Your task to perform on an android device: toggle priority inbox in the gmail app Image 0: 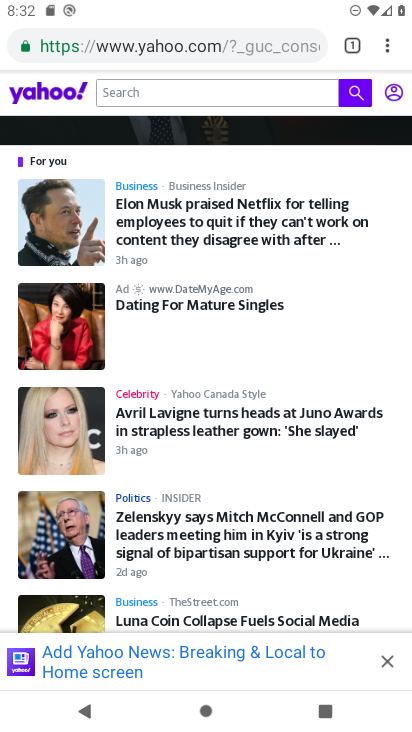
Step 0: press home button
Your task to perform on an android device: toggle priority inbox in the gmail app Image 1: 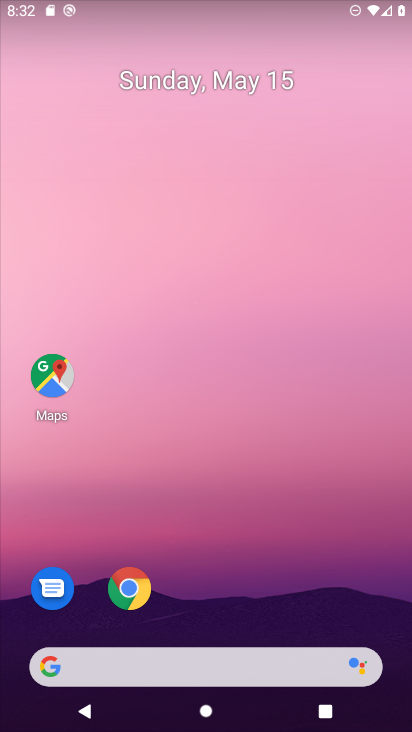
Step 1: drag from (223, 617) to (245, 128)
Your task to perform on an android device: toggle priority inbox in the gmail app Image 2: 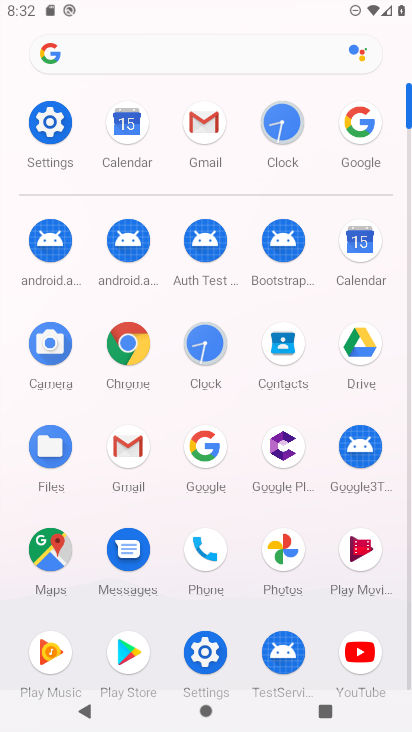
Step 2: click (121, 442)
Your task to perform on an android device: toggle priority inbox in the gmail app Image 3: 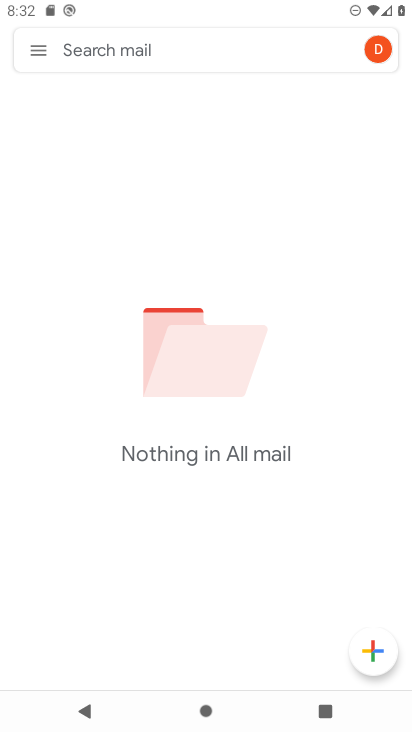
Step 3: click (38, 48)
Your task to perform on an android device: toggle priority inbox in the gmail app Image 4: 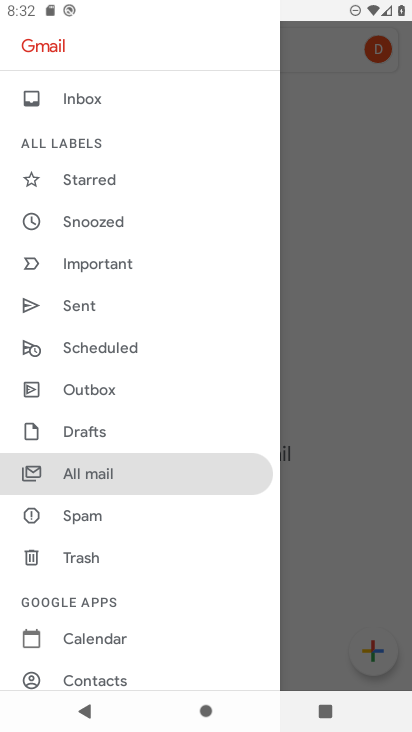
Step 4: drag from (148, 655) to (162, 100)
Your task to perform on an android device: toggle priority inbox in the gmail app Image 5: 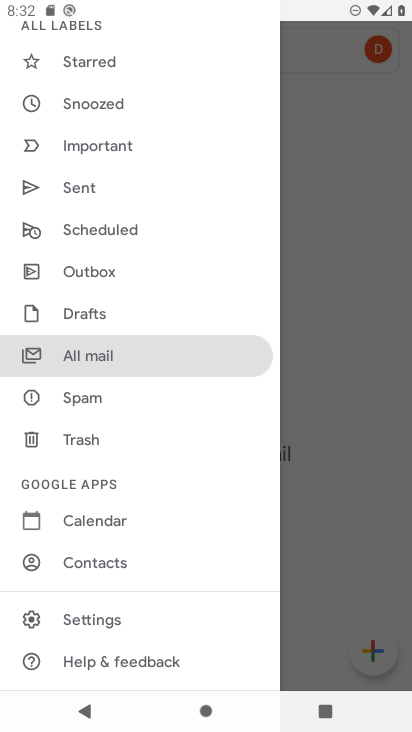
Step 5: click (126, 613)
Your task to perform on an android device: toggle priority inbox in the gmail app Image 6: 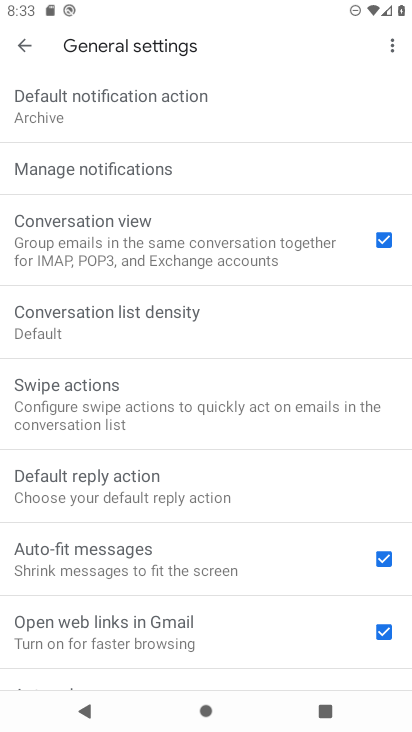
Step 6: click (24, 40)
Your task to perform on an android device: toggle priority inbox in the gmail app Image 7: 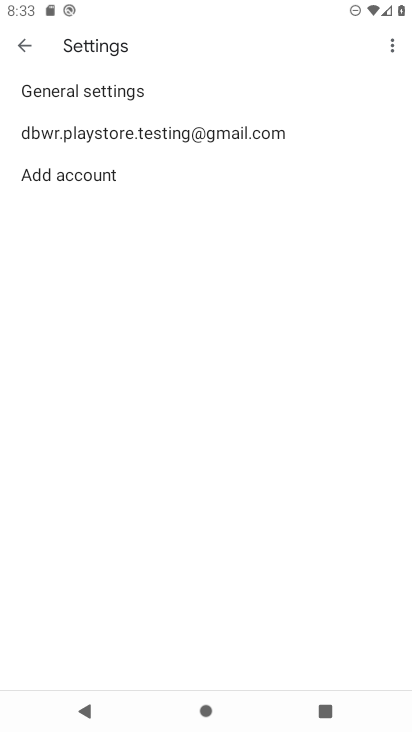
Step 7: click (73, 130)
Your task to perform on an android device: toggle priority inbox in the gmail app Image 8: 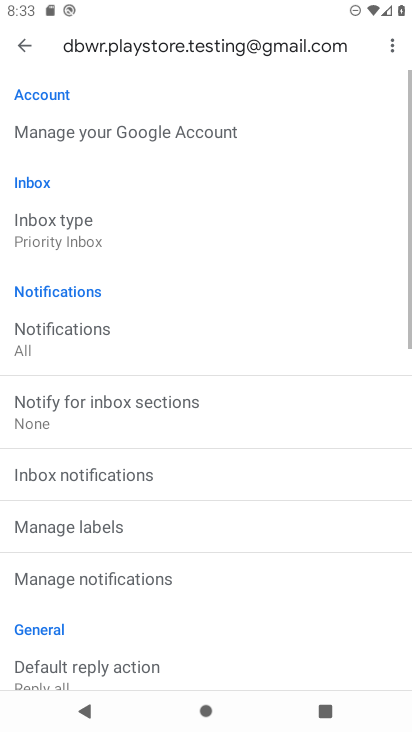
Step 8: click (59, 219)
Your task to perform on an android device: toggle priority inbox in the gmail app Image 9: 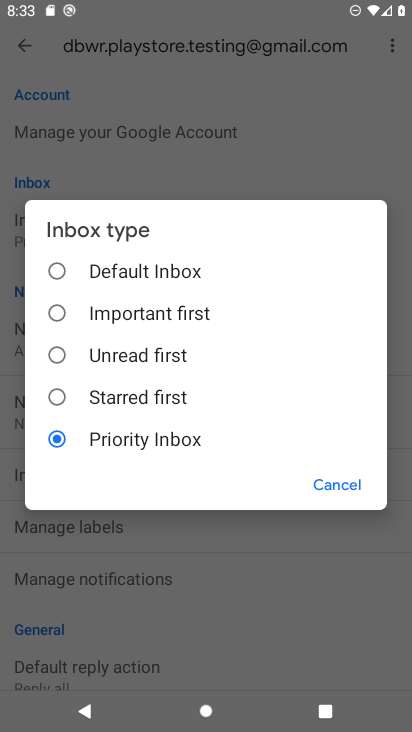
Step 9: task complete